Your task to perform on an android device: Open calendar and show me the first week of next month Image 0: 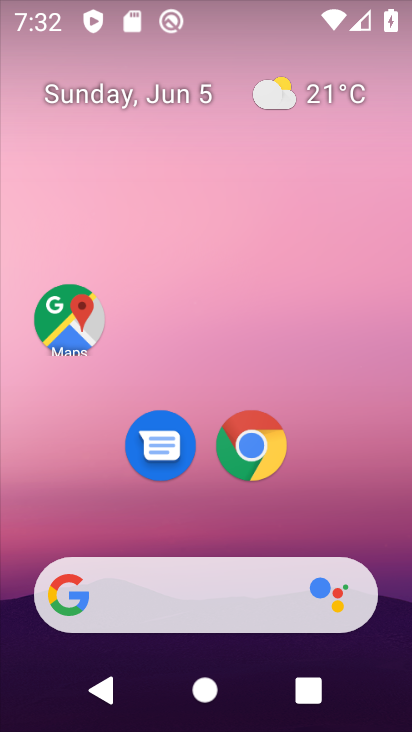
Step 0: drag from (333, 481) to (310, 11)
Your task to perform on an android device: Open calendar and show me the first week of next month Image 1: 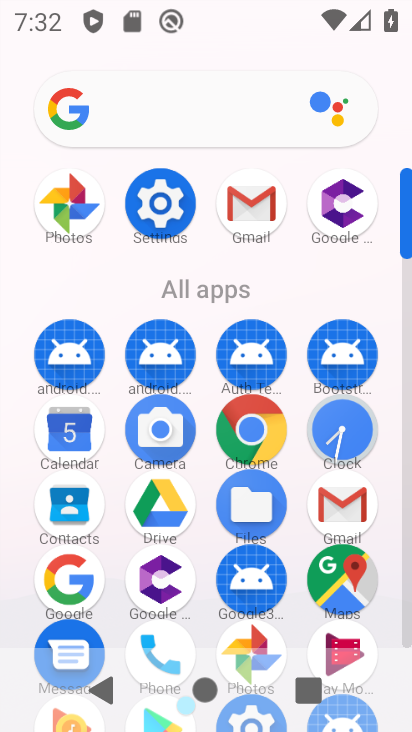
Step 1: click (69, 434)
Your task to perform on an android device: Open calendar and show me the first week of next month Image 2: 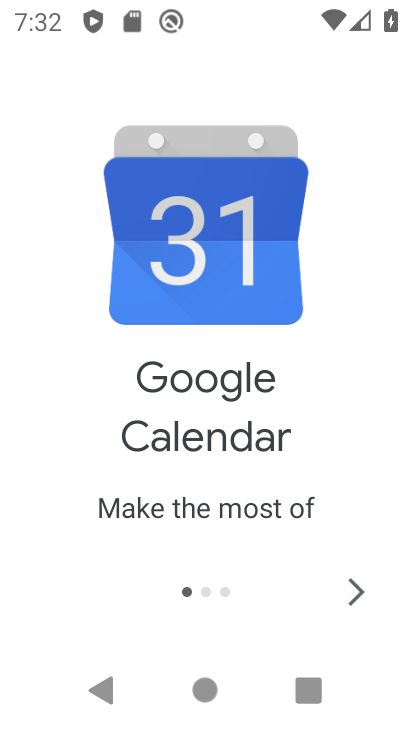
Step 2: click (353, 585)
Your task to perform on an android device: Open calendar and show me the first week of next month Image 3: 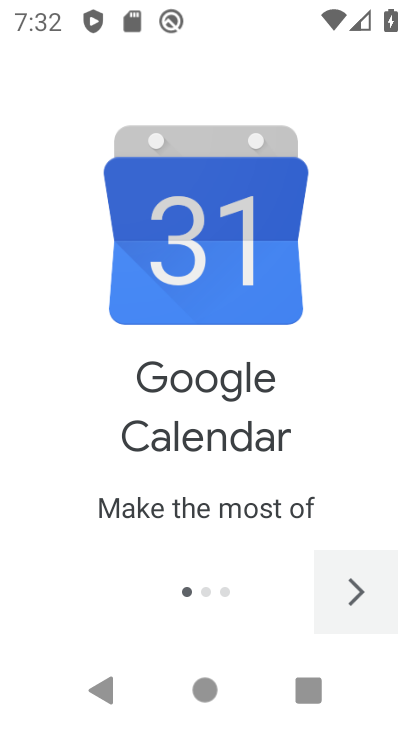
Step 3: click (353, 585)
Your task to perform on an android device: Open calendar and show me the first week of next month Image 4: 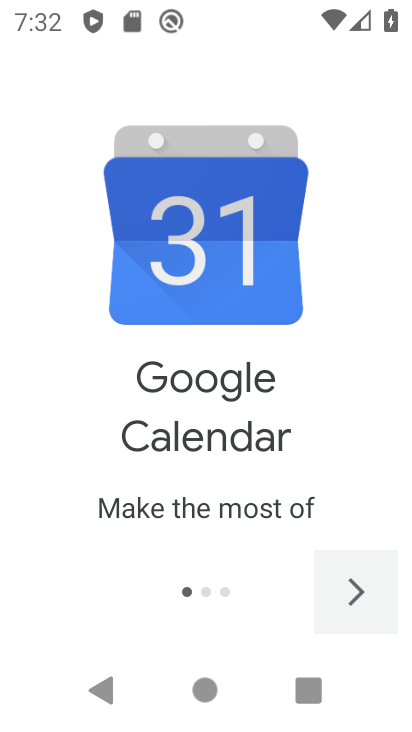
Step 4: click (350, 584)
Your task to perform on an android device: Open calendar and show me the first week of next month Image 5: 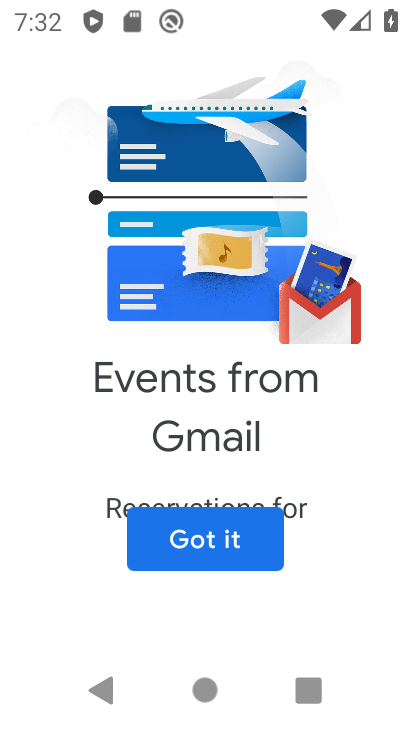
Step 5: click (214, 523)
Your task to perform on an android device: Open calendar and show me the first week of next month Image 6: 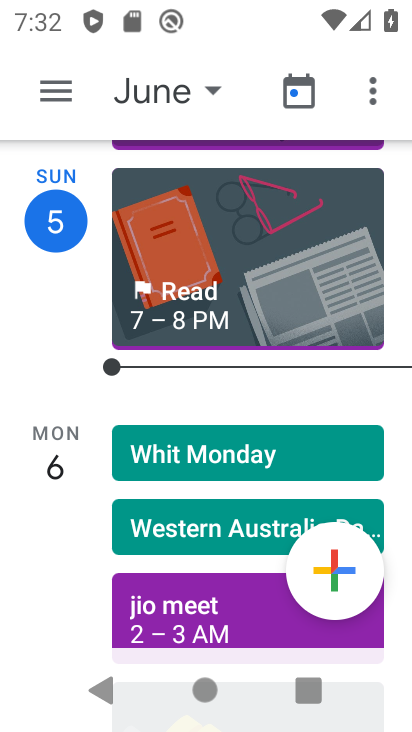
Step 6: click (58, 97)
Your task to perform on an android device: Open calendar and show me the first week of next month Image 7: 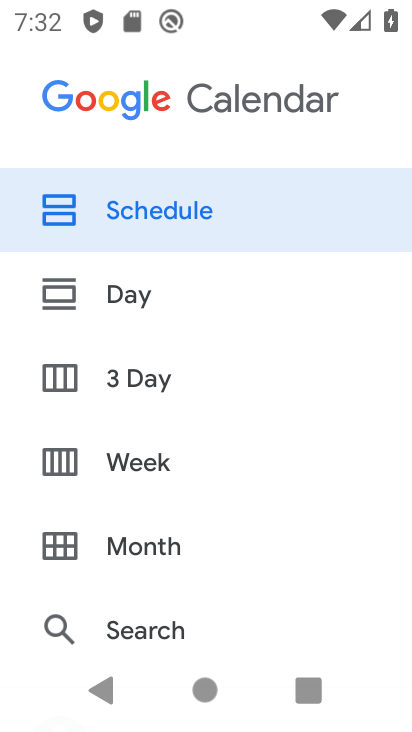
Step 7: click (150, 548)
Your task to perform on an android device: Open calendar and show me the first week of next month Image 8: 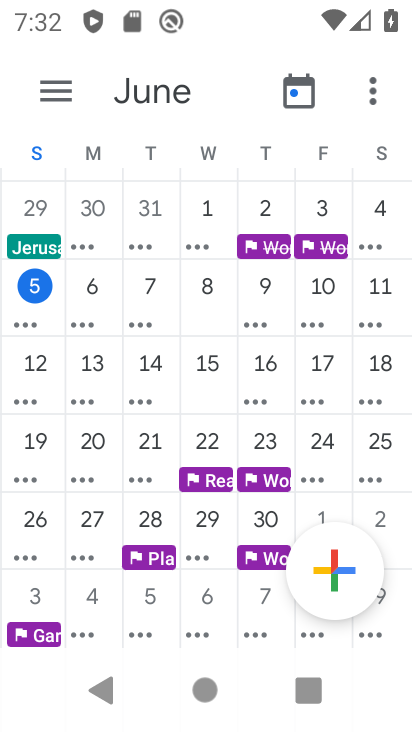
Step 8: drag from (311, 393) to (22, 312)
Your task to perform on an android device: Open calendar and show me the first week of next month Image 9: 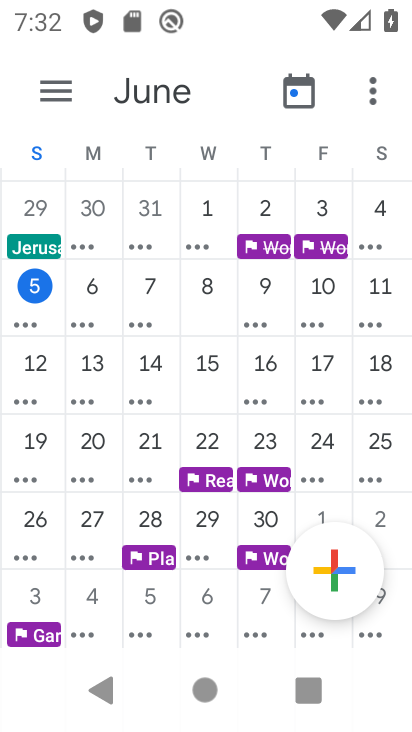
Step 9: drag from (367, 388) to (73, 408)
Your task to perform on an android device: Open calendar and show me the first week of next month Image 10: 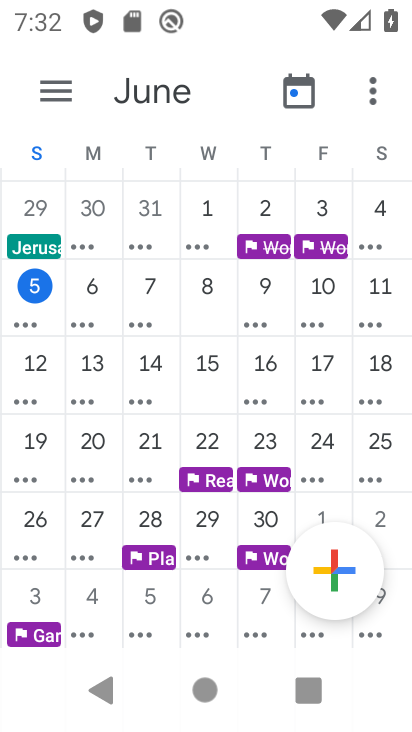
Step 10: drag from (389, 419) to (28, 284)
Your task to perform on an android device: Open calendar and show me the first week of next month Image 11: 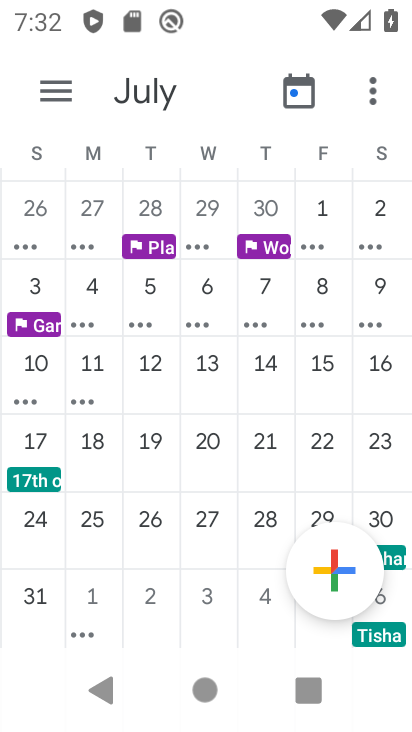
Step 11: click (320, 214)
Your task to perform on an android device: Open calendar and show me the first week of next month Image 12: 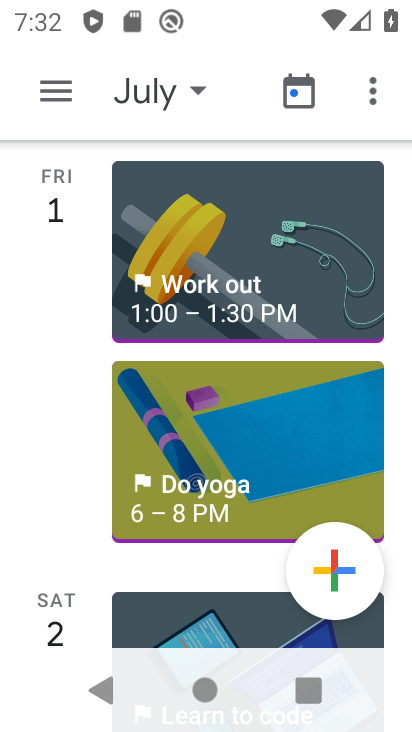
Step 12: drag from (55, 564) to (60, 39)
Your task to perform on an android device: Open calendar and show me the first week of next month Image 13: 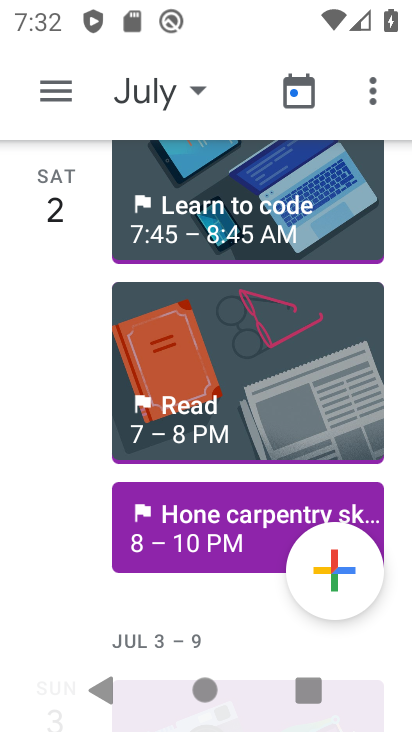
Step 13: drag from (31, 544) to (44, 40)
Your task to perform on an android device: Open calendar and show me the first week of next month Image 14: 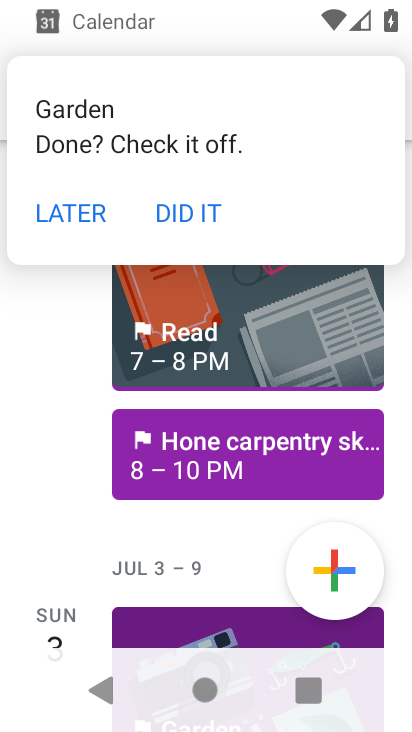
Step 14: drag from (54, 563) to (76, 208)
Your task to perform on an android device: Open calendar and show me the first week of next month Image 15: 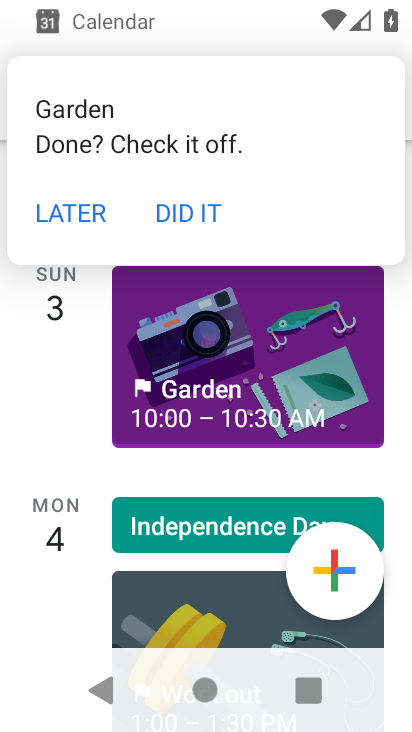
Step 15: drag from (48, 597) to (90, 251)
Your task to perform on an android device: Open calendar and show me the first week of next month Image 16: 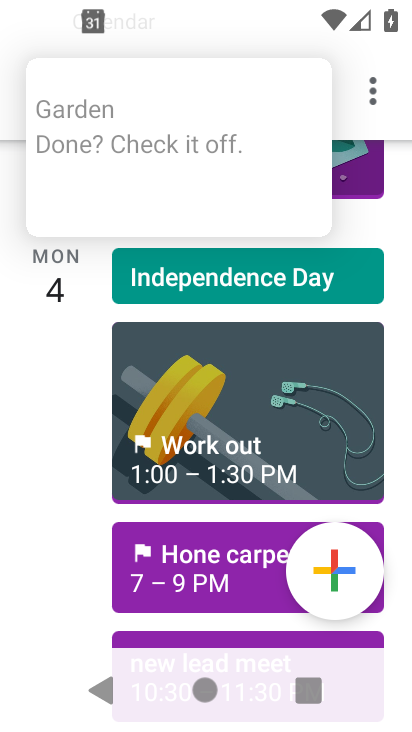
Step 16: click (69, 214)
Your task to perform on an android device: Open calendar and show me the first week of next month Image 17: 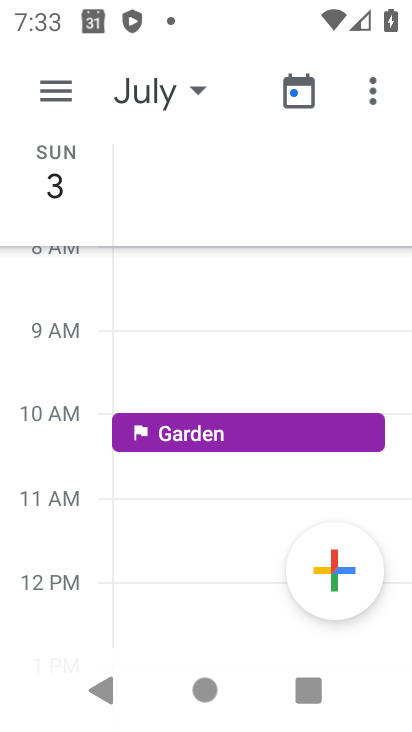
Step 17: task complete